Your task to perform on an android device: turn off data saver in the chrome app Image 0: 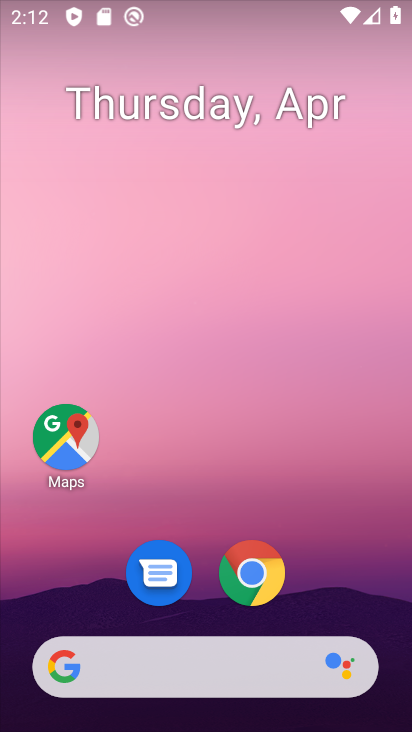
Step 0: drag from (371, 355) to (351, 56)
Your task to perform on an android device: turn off data saver in the chrome app Image 1: 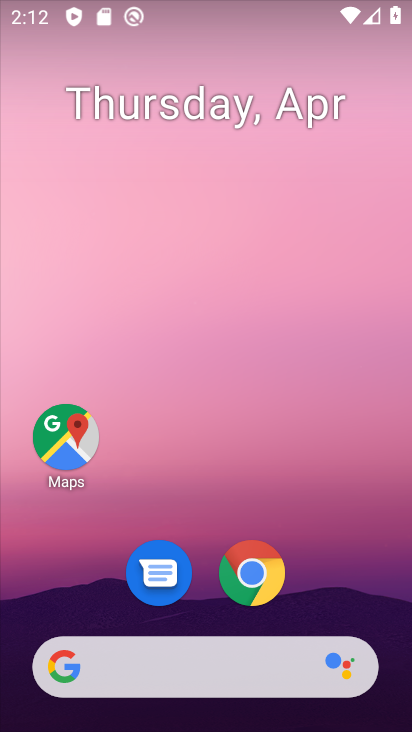
Step 1: drag from (340, 602) to (219, 61)
Your task to perform on an android device: turn off data saver in the chrome app Image 2: 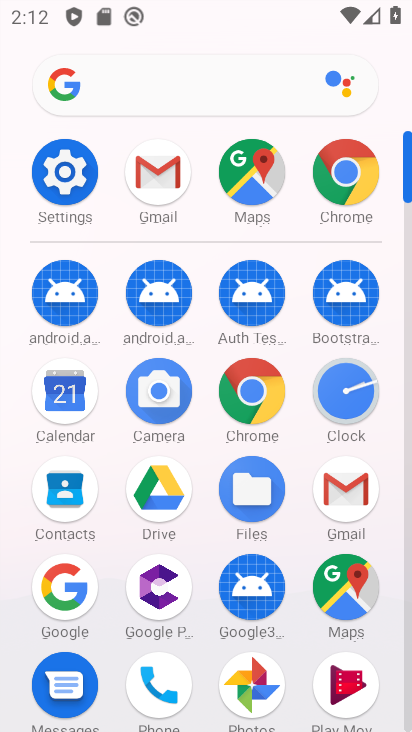
Step 2: click (255, 409)
Your task to perform on an android device: turn off data saver in the chrome app Image 3: 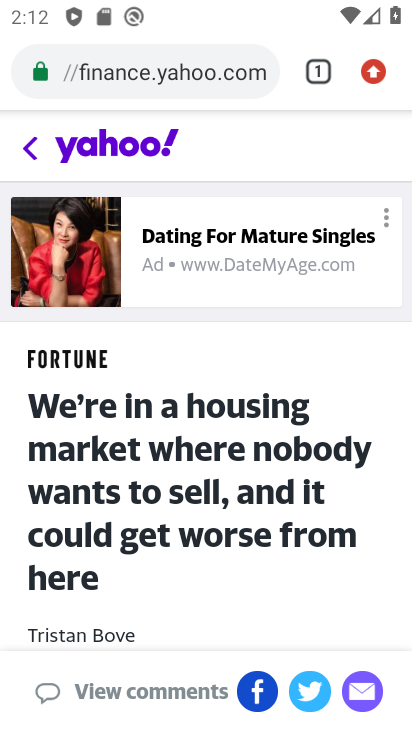
Step 3: press back button
Your task to perform on an android device: turn off data saver in the chrome app Image 4: 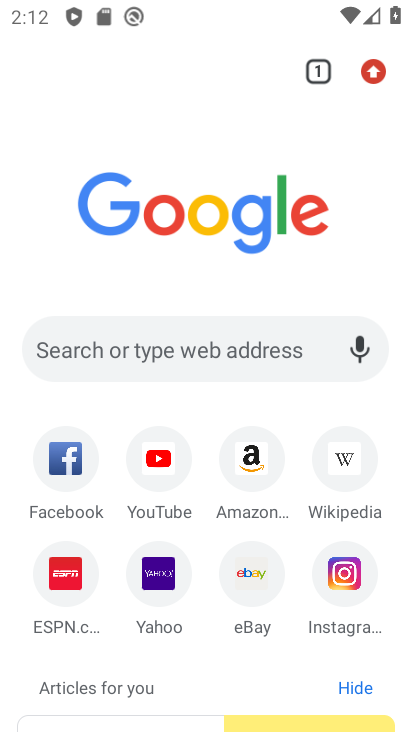
Step 4: click (369, 70)
Your task to perform on an android device: turn off data saver in the chrome app Image 5: 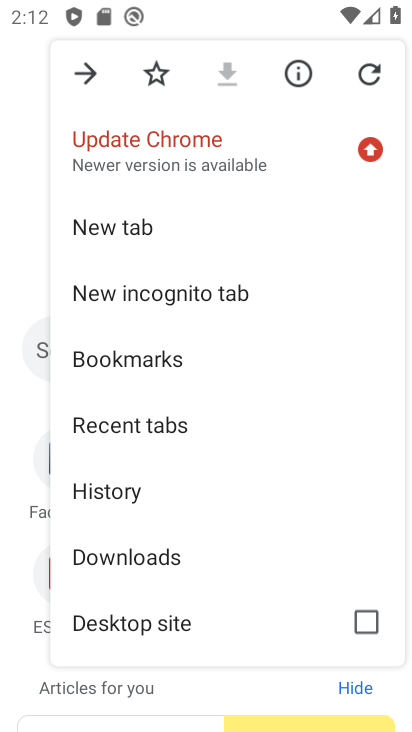
Step 5: drag from (180, 604) to (171, 342)
Your task to perform on an android device: turn off data saver in the chrome app Image 6: 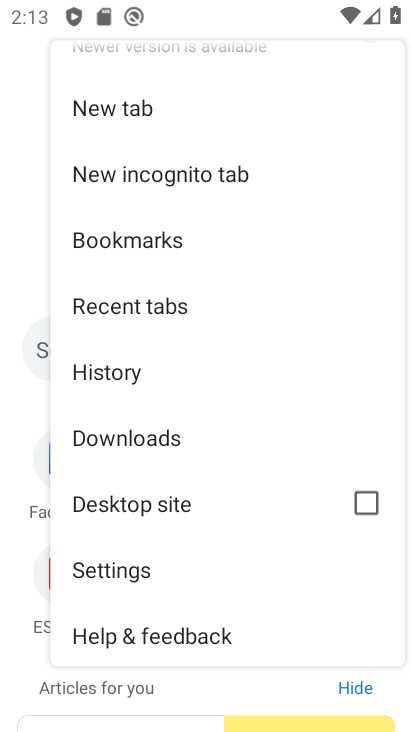
Step 6: click (156, 555)
Your task to perform on an android device: turn off data saver in the chrome app Image 7: 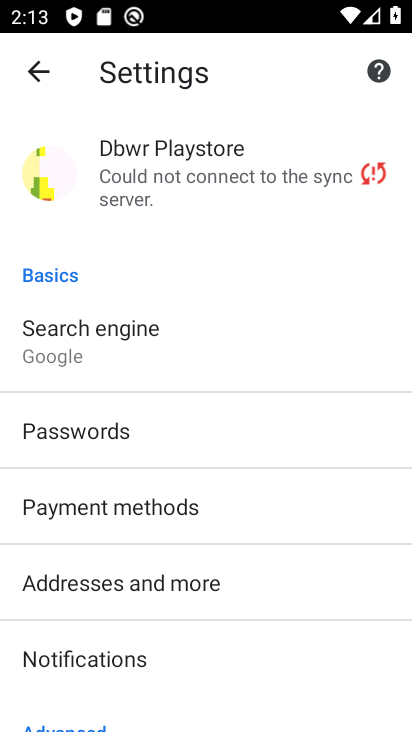
Step 7: drag from (179, 610) to (179, 168)
Your task to perform on an android device: turn off data saver in the chrome app Image 8: 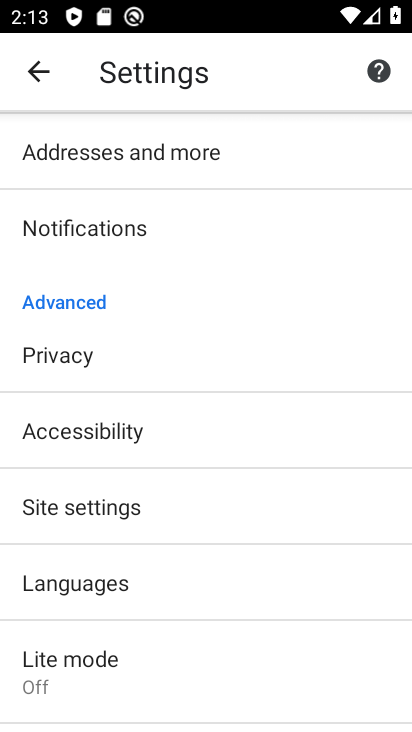
Step 8: click (139, 673)
Your task to perform on an android device: turn off data saver in the chrome app Image 9: 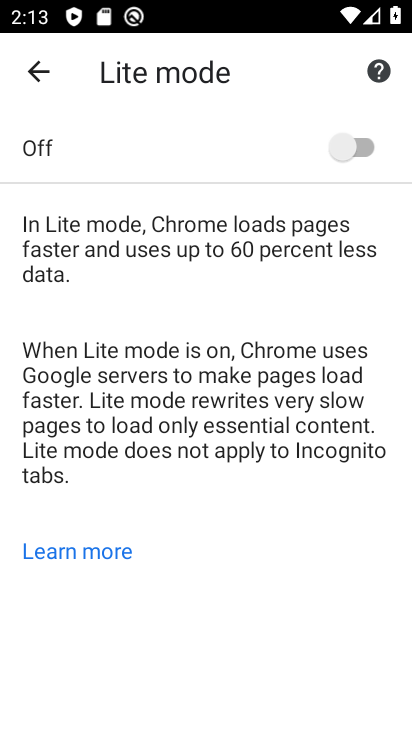
Step 9: task complete